Your task to perform on an android device: What's the weather going to be tomorrow? Image 0: 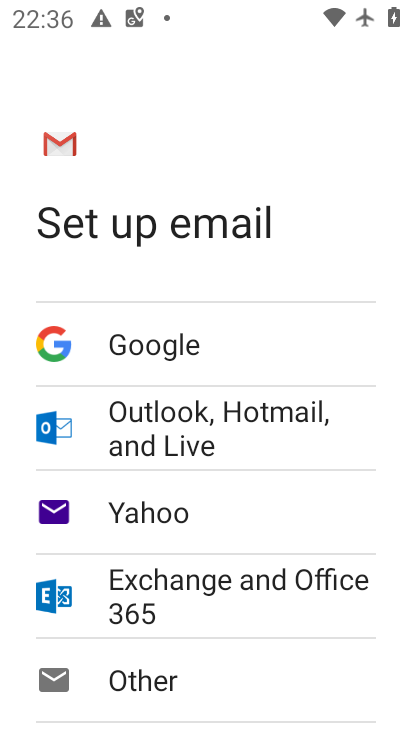
Step 0: drag from (352, 556) to (382, 144)
Your task to perform on an android device: What's the weather going to be tomorrow? Image 1: 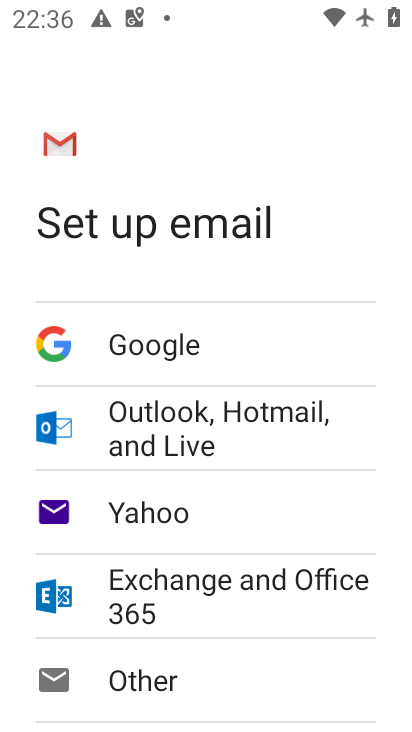
Step 1: press home button
Your task to perform on an android device: What's the weather going to be tomorrow? Image 2: 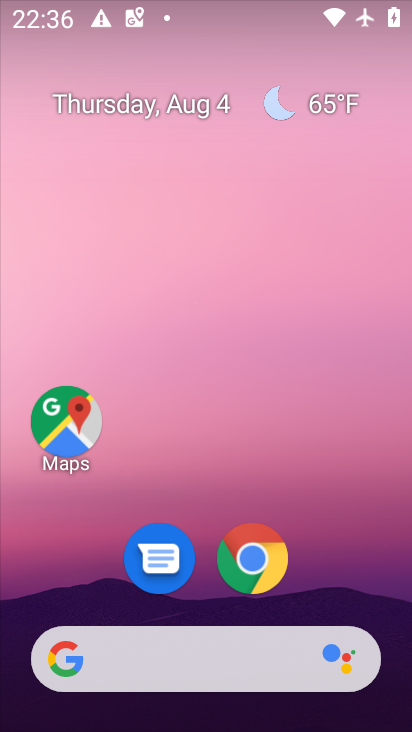
Step 2: drag from (371, 549) to (305, 130)
Your task to perform on an android device: What's the weather going to be tomorrow? Image 3: 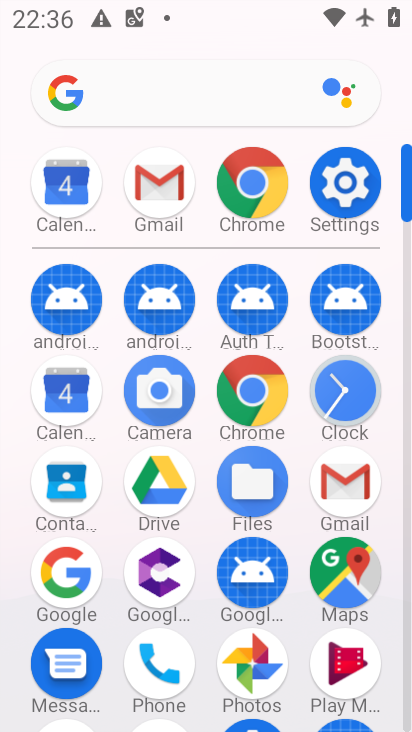
Step 3: press home button
Your task to perform on an android device: What's the weather going to be tomorrow? Image 4: 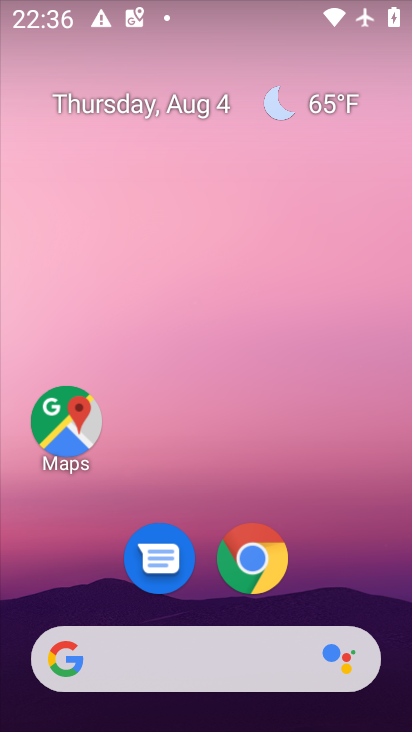
Step 4: click (339, 106)
Your task to perform on an android device: What's the weather going to be tomorrow? Image 5: 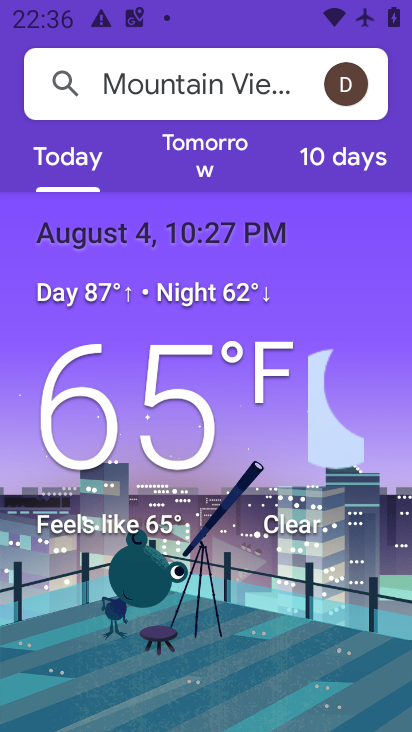
Step 5: click (216, 165)
Your task to perform on an android device: What's the weather going to be tomorrow? Image 6: 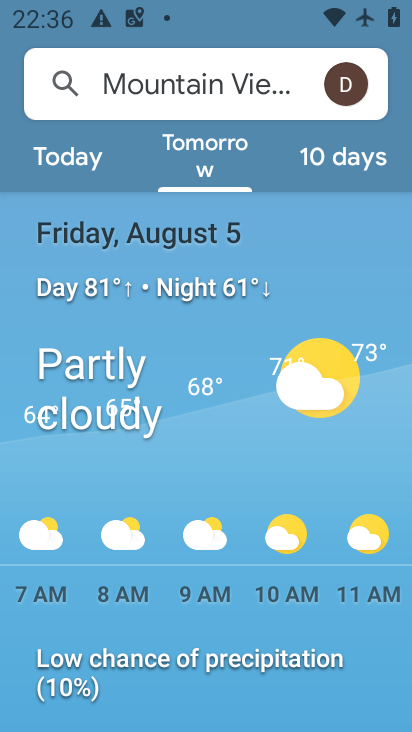
Step 6: task complete